Your task to perform on an android device: Open CNN.com Image 0: 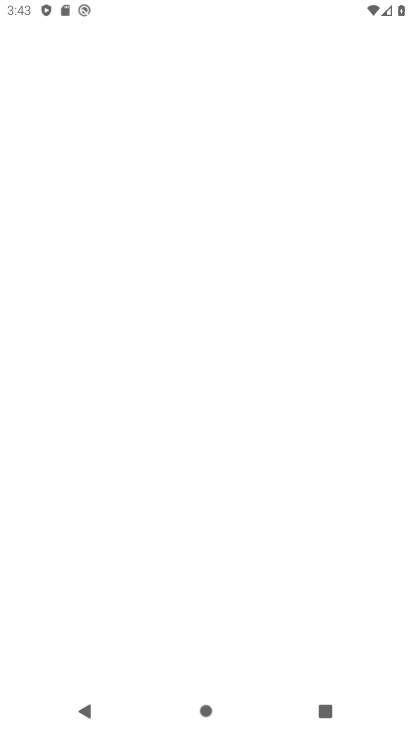
Step 0: press home button
Your task to perform on an android device: Open CNN.com Image 1: 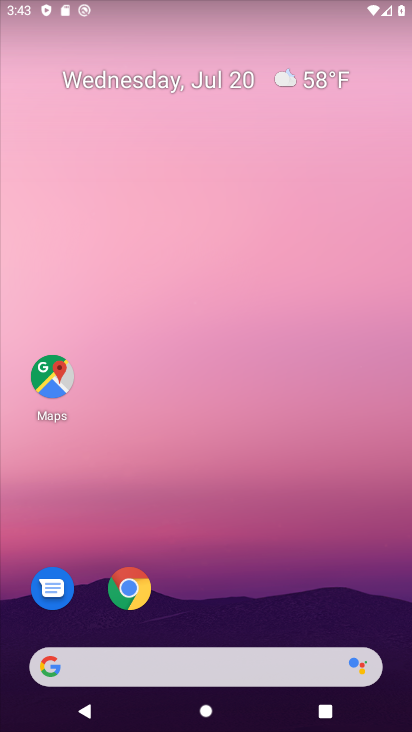
Step 1: drag from (144, 611) to (185, 316)
Your task to perform on an android device: Open CNN.com Image 2: 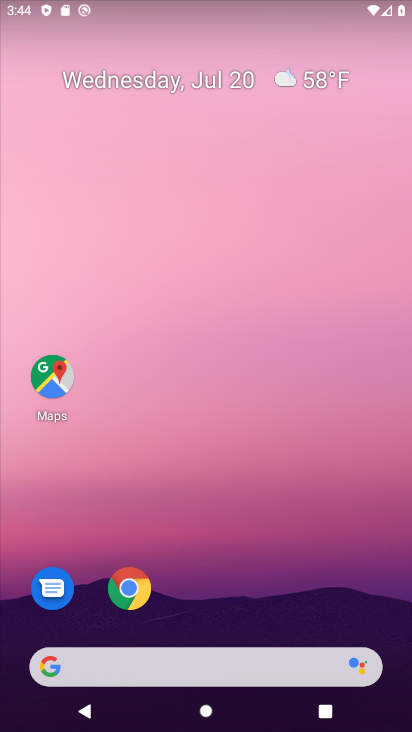
Step 2: drag from (163, 644) to (236, 194)
Your task to perform on an android device: Open CNN.com Image 3: 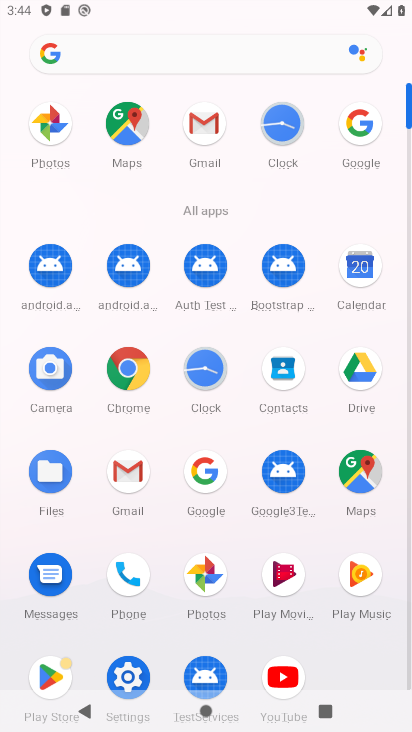
Step 3: click (191, 474)
Your task to perform on an android device: Open CNN.com Image 4: 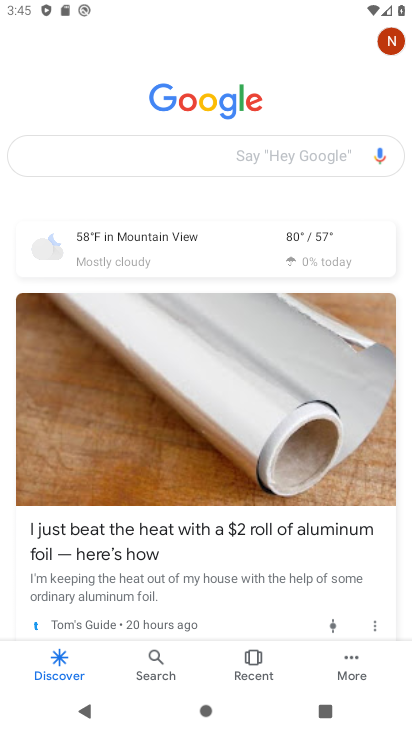
Step 4: click (199, 154)
Your task to perform on an android device: Open CNN.com Image 5: 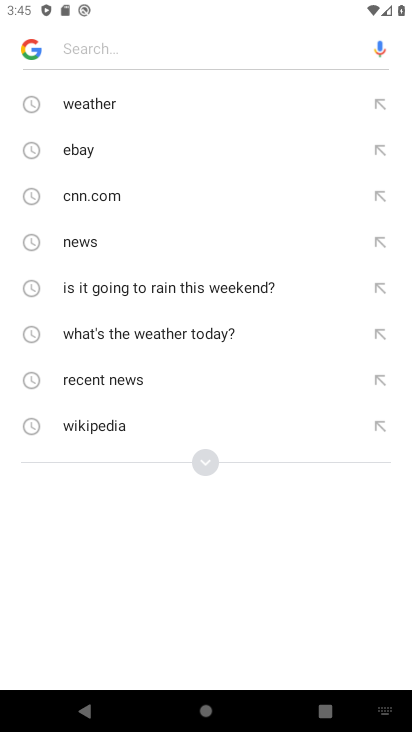
Step 5: click (115, 203)
Your task to perform on an android device: Open CNN.com Image 6: 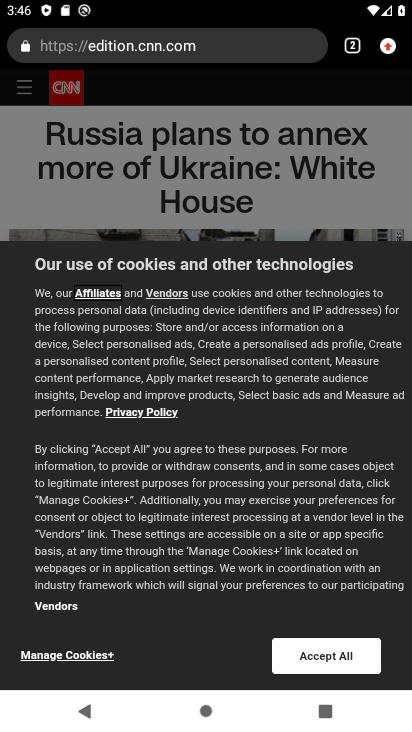
Step 6: task complete